Your task to perform on an android device: toggle data saver in the chrome app Image 0: 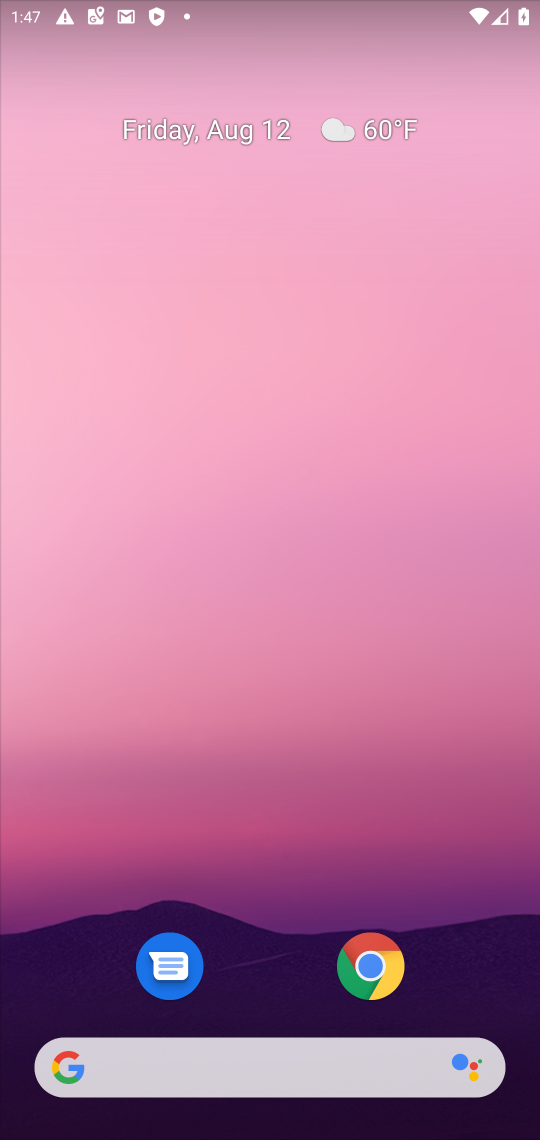
Step 0: drag from (233, 944) to (524, 710)
Your task to perform on an android device: toggle data saver in the chrome app Image 1: 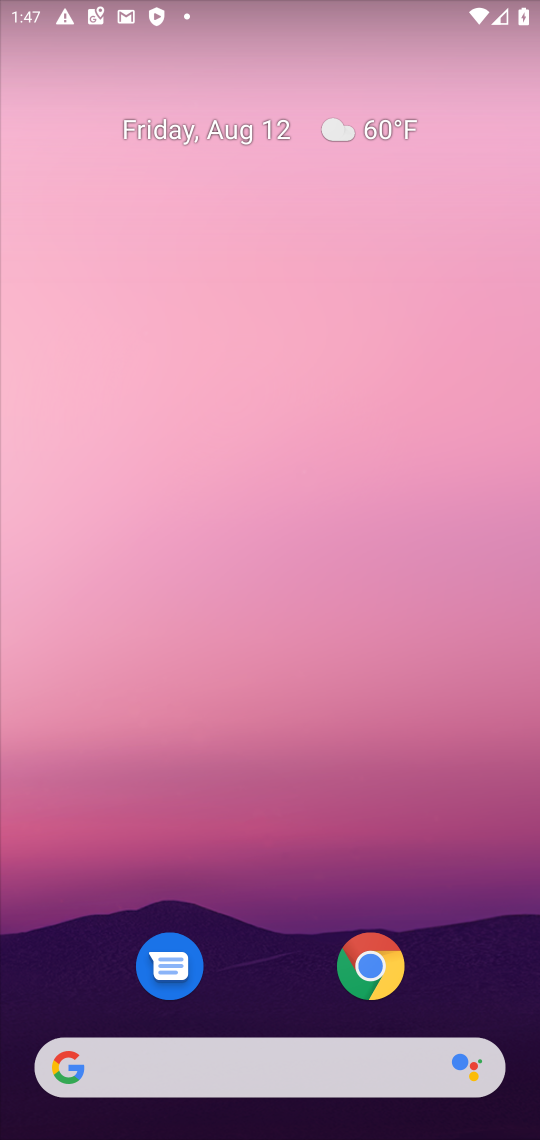
Step 1: click (171, 626)
Your task to perform on an android device: toggle data saver in the chrome app Image 2: 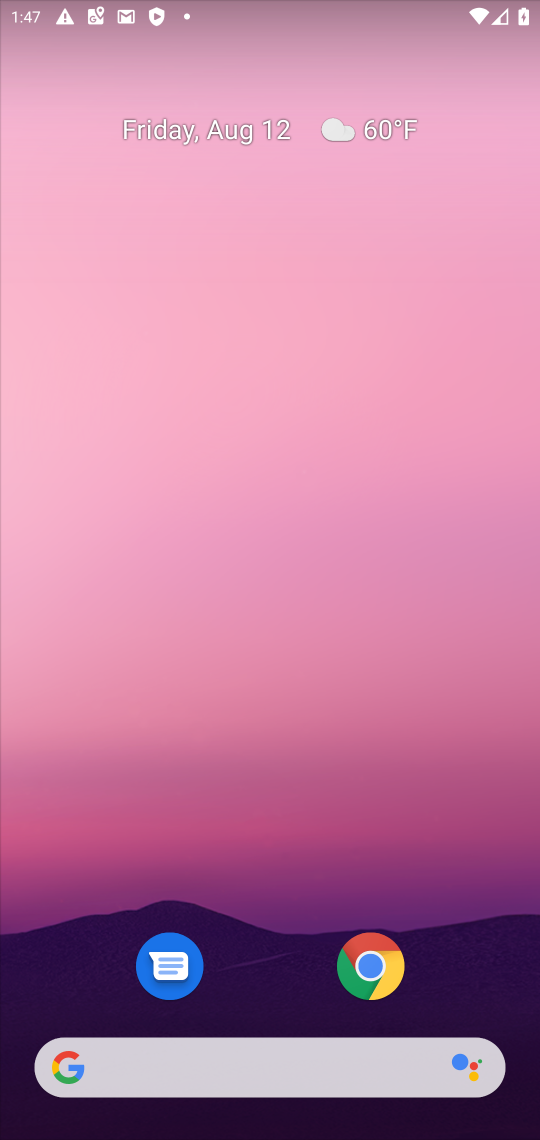
Step 2: drag from (257, 799) to (333, 138)
Your task to perform on an android device: toggle data saver in the chrome app Image 3: 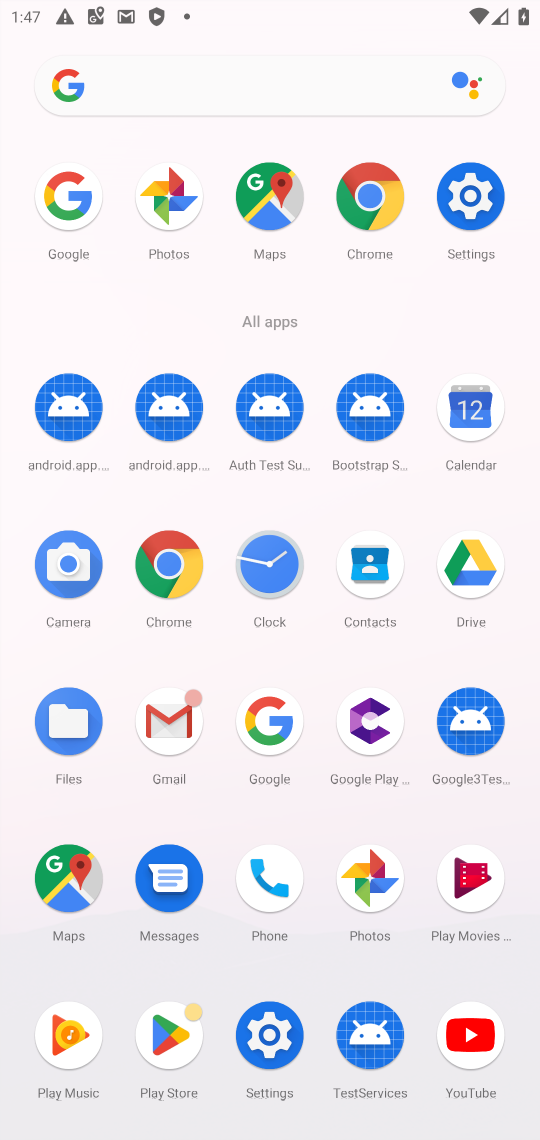
Step 3: click (165, 569)
Your task to perform on an android device: toggle data saver in the chrome app Image 4: 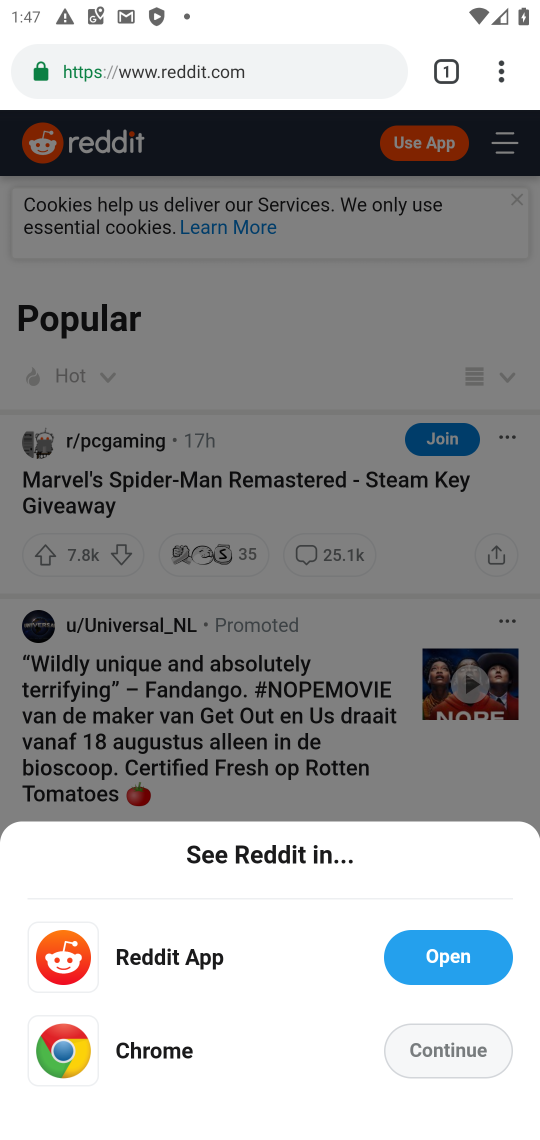
Step 4: drag from (502, 61) to (245, 863)
Your task to perform on an android device: toggle data saver in the chrome app Image 5: 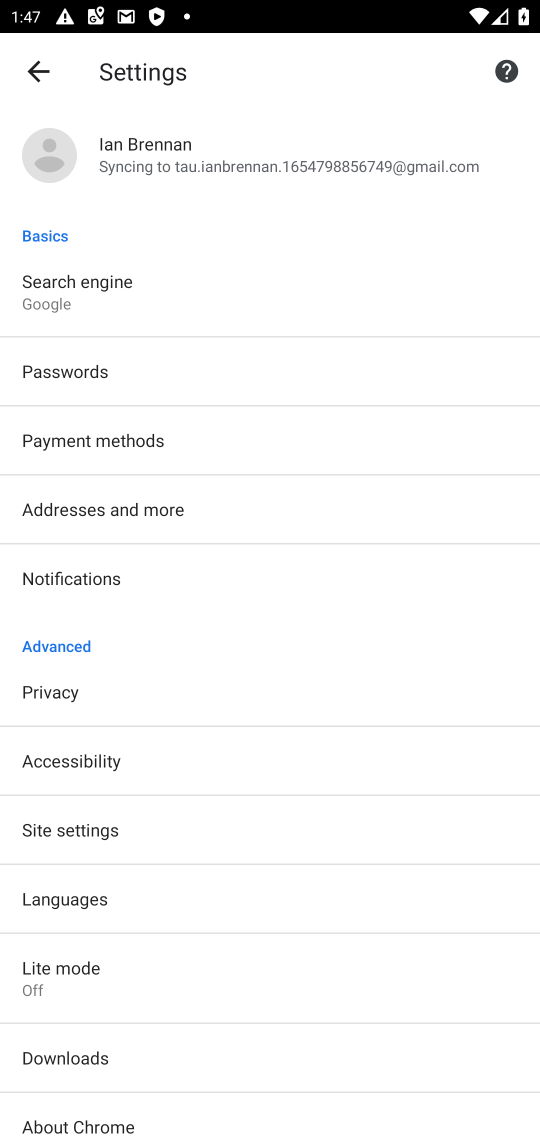
Step 5: click (96, 979)
Your task to perform on an android device: toggle data saver in the chrome app Image 6: 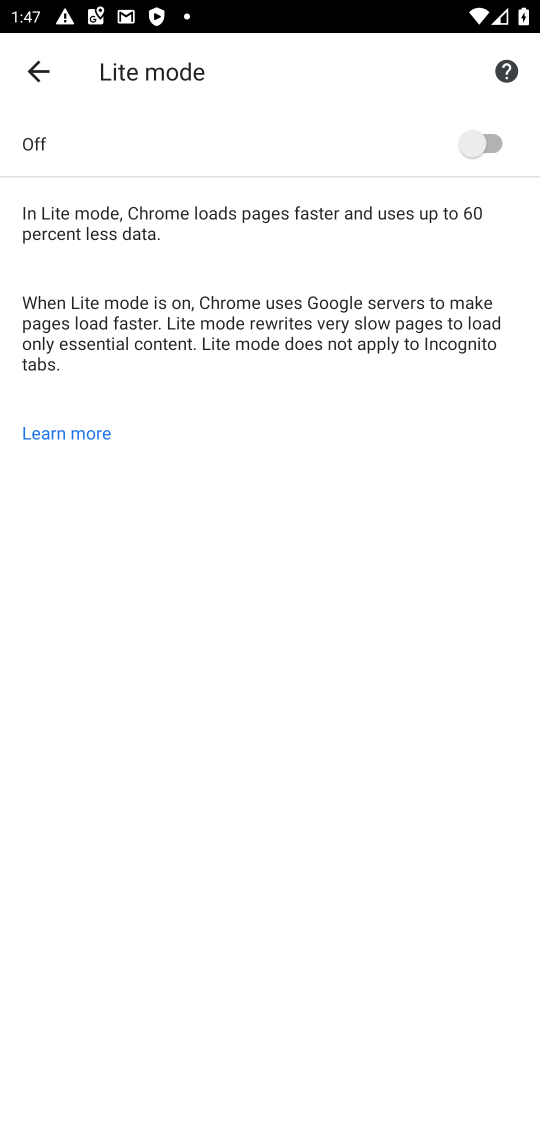
Step 6: click (478, 138)
Your task to perform on an android device: toggle data saver in the chrome app Image 7: 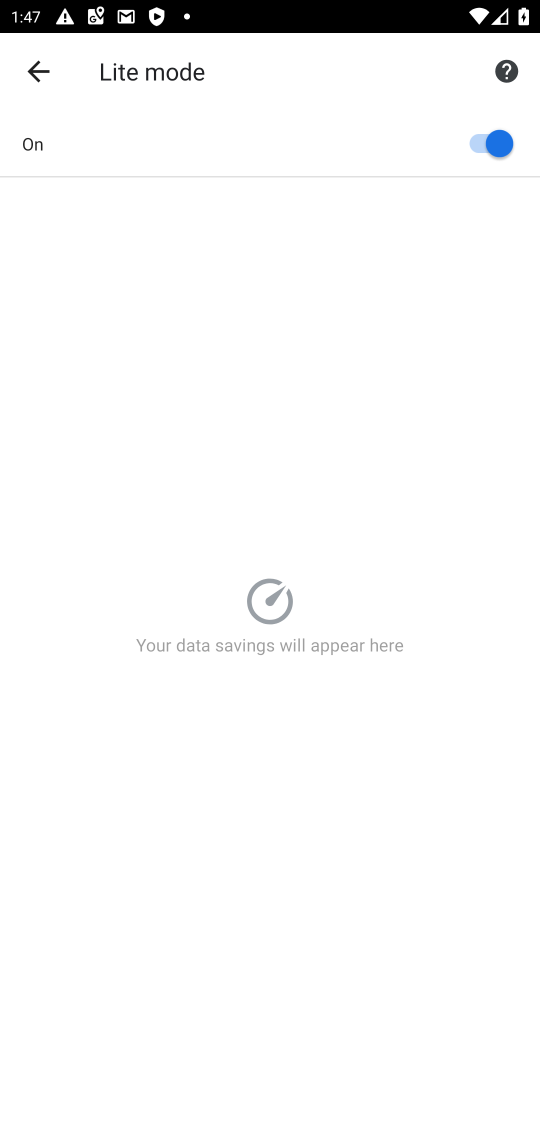
Step 7: task complete